Your task to perform on an android device: Clear the shopping cart on walmart. Add sony triple a to the cart on walmart, then select checkout. Image 0: 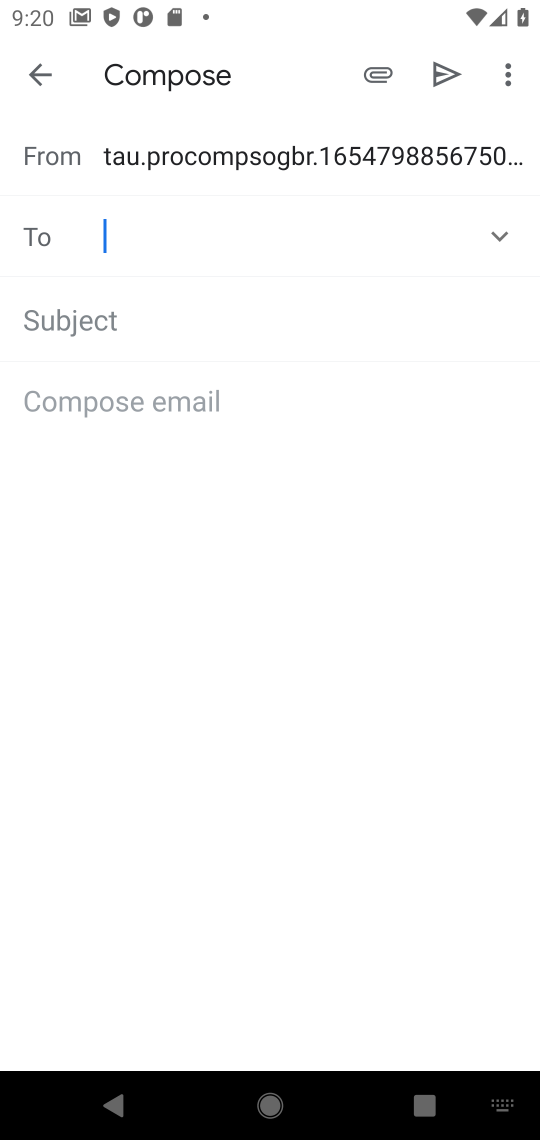
Step 0: press home button
Your task to perform on an android device: Clear the shopping cart on walmart. Add sony triple a to the cart on walmart, then select checkout. Image 1: 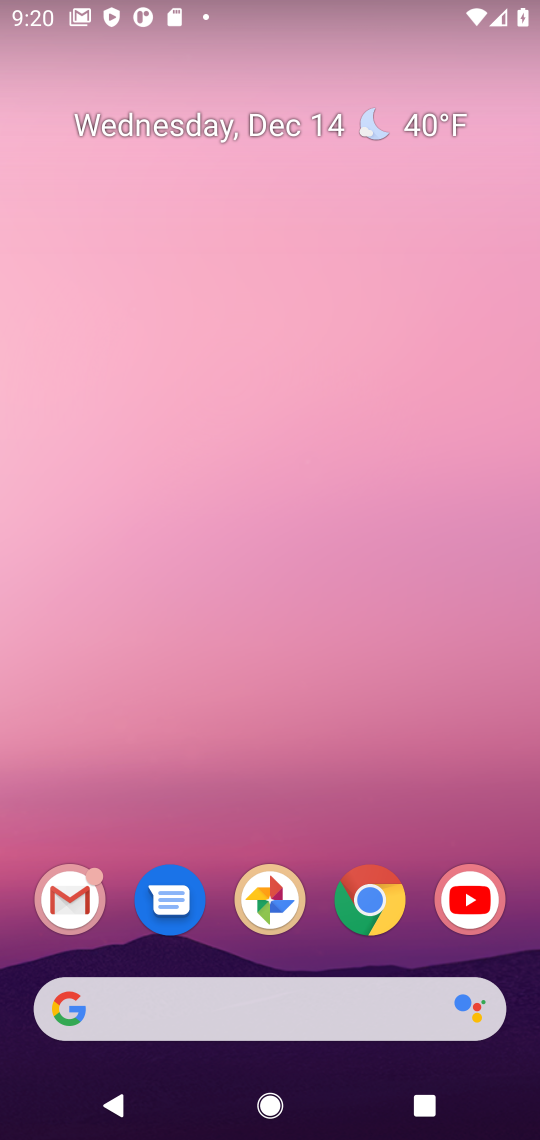
Step 1: click (378, 903)
Your task to perform on an android device: Clear the shopping cart on walmart. Add sony triple a to the cart on walmart, then select checkout. Image 2: 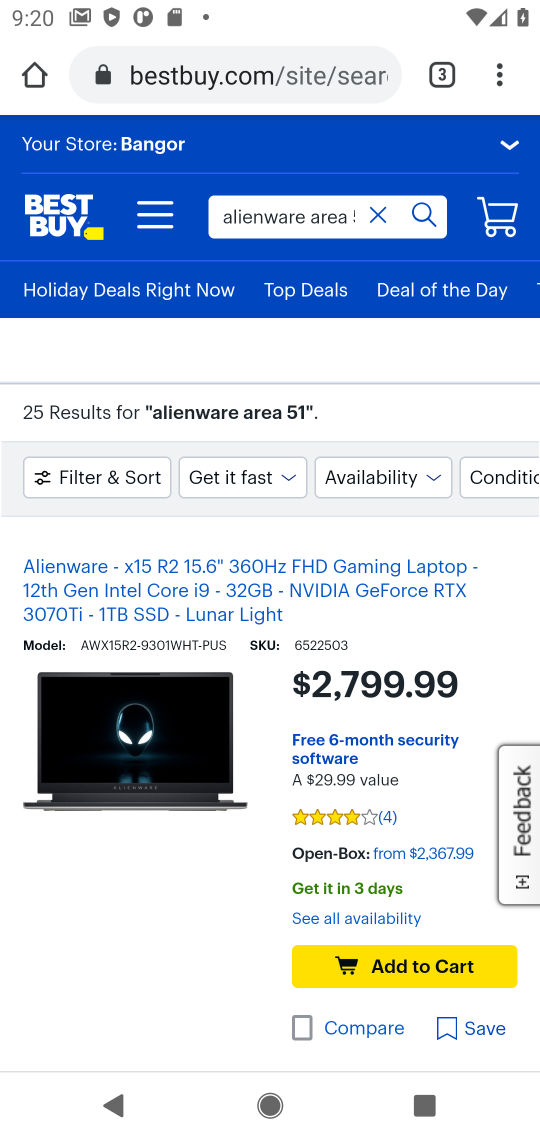
Step 2: click (175, 91)
Your task to perform on an android device: Clear the shopping cart on walmart. Add sony triple a to the cart on walmart, then select checkout. Image 3: 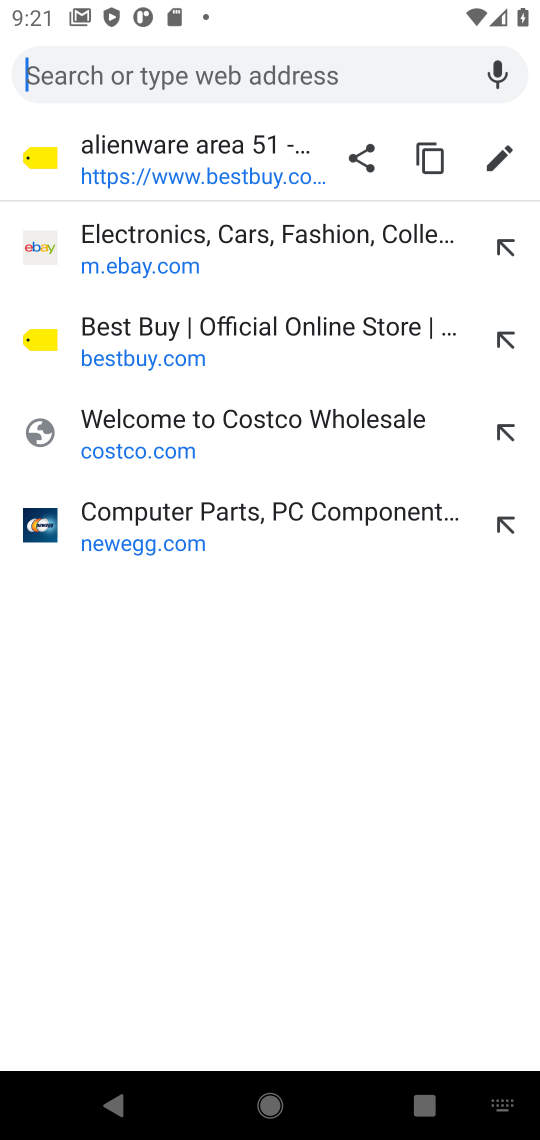
Step 3: type "walmart.com"
Your task to perform on an android device: Clear the shopping cart on walmart. Add sony triple a to the cart on walmart, then select checkout. Image 4: 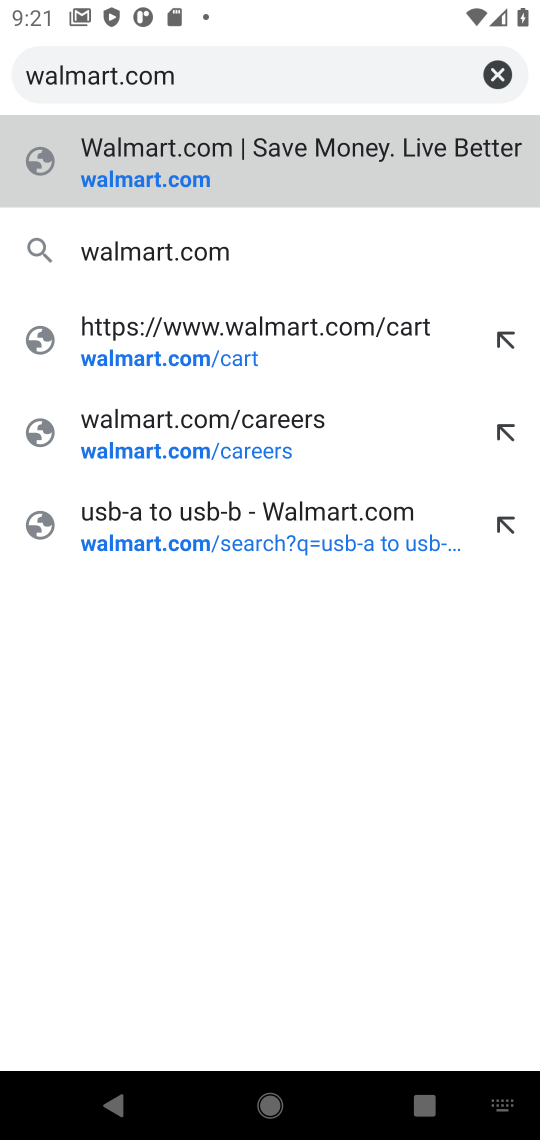
Step 4: click (151, 172)
Your task to perform on an android device: Clear the shopping cart on walmart. Add sony triple a to the cart on walmart, then select checkout. Image 5: 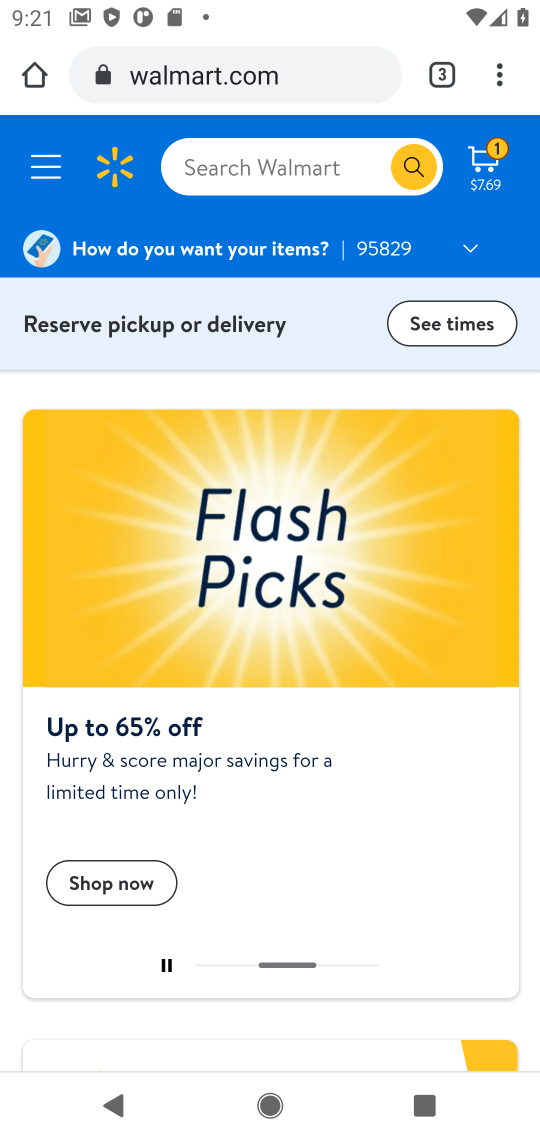
Step 5: click (483, 170)
Your task to perform on an android device: Clear the shopping cart on walmart. Add sony triple a to the cart on walmart, then select checkout. Image 6: 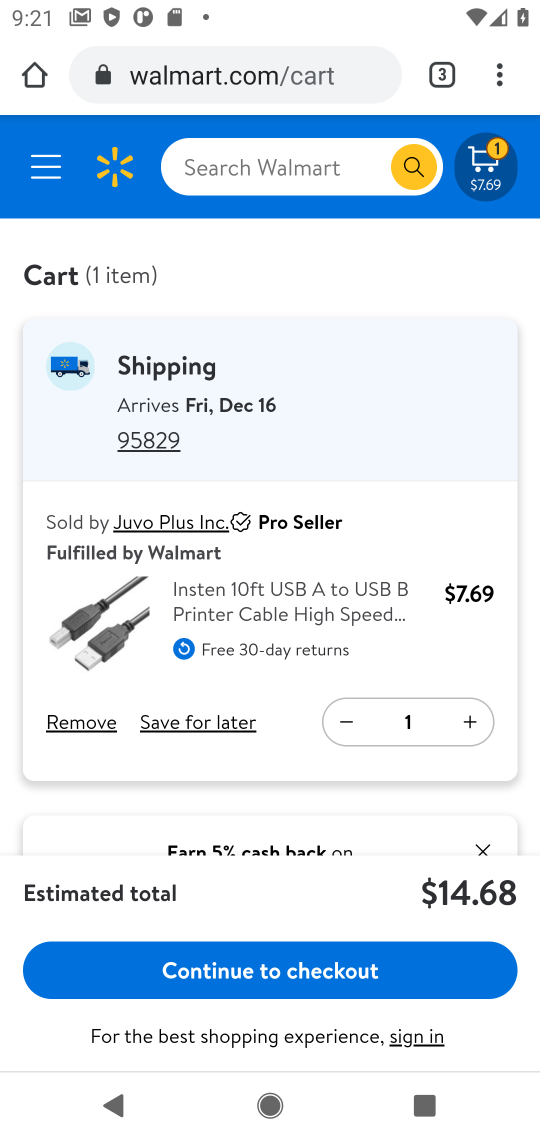
Step 6: click (89, 721)
Your task to perform on an android device: Clear the shopping cart on walmart. Add sony triple a to the cart on walmart, then select checkout. Image 7: 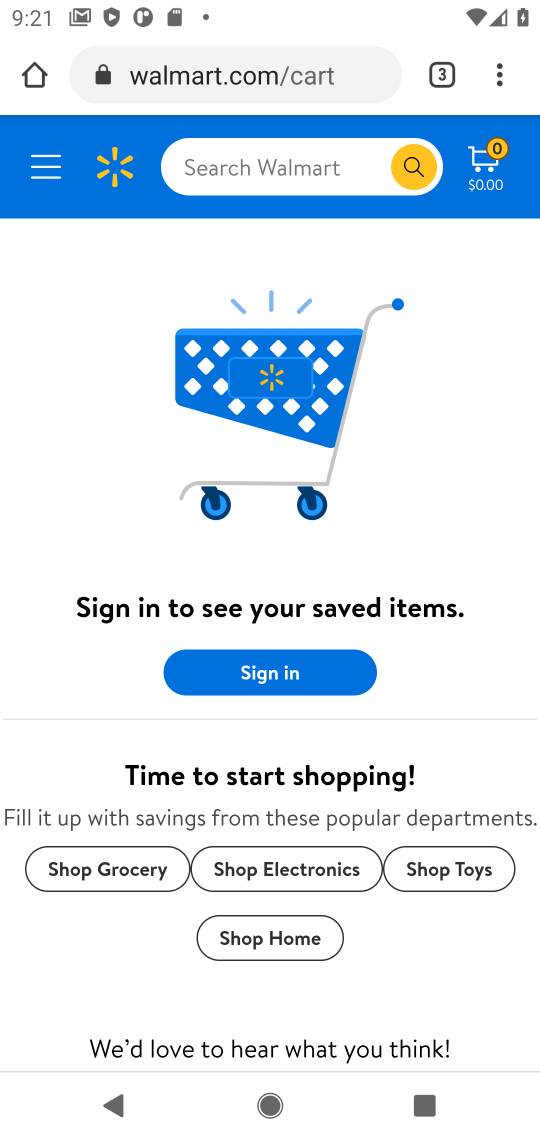
Step 7: click (225, 175)
Your task to perform on an android device: Clear the shopping cart on walmart. Add sony triple a to the cart on walmart, then select checkout. Image 8: 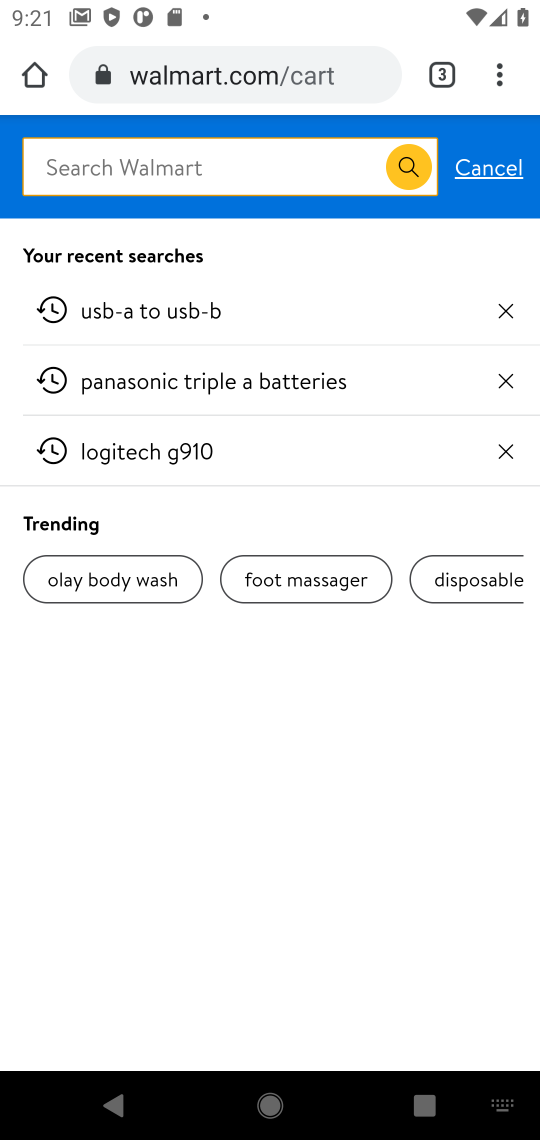
Step 8: type "sony triple a"
Your task to perform on an android device: Clear the shopping cart on walmart. Add sony triple a to the cart on walmart, then select checkout. Image 9: 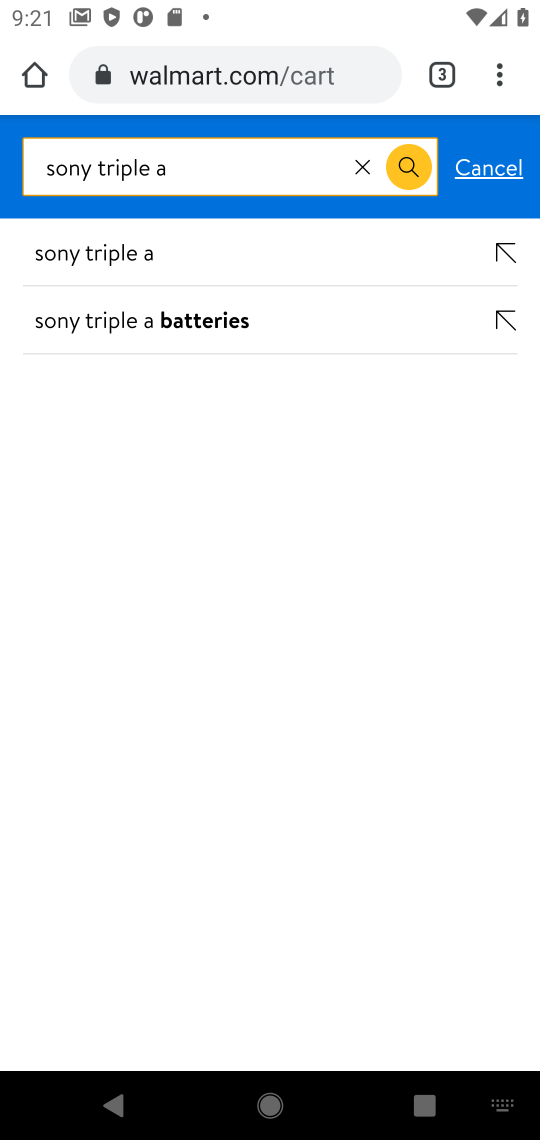
Step 9: click (118, 259)
Your task to perform on an android device: Clear the shopping cart on walmart. Add sony triple a to the cart on walmart, then select checkout. Image 10: 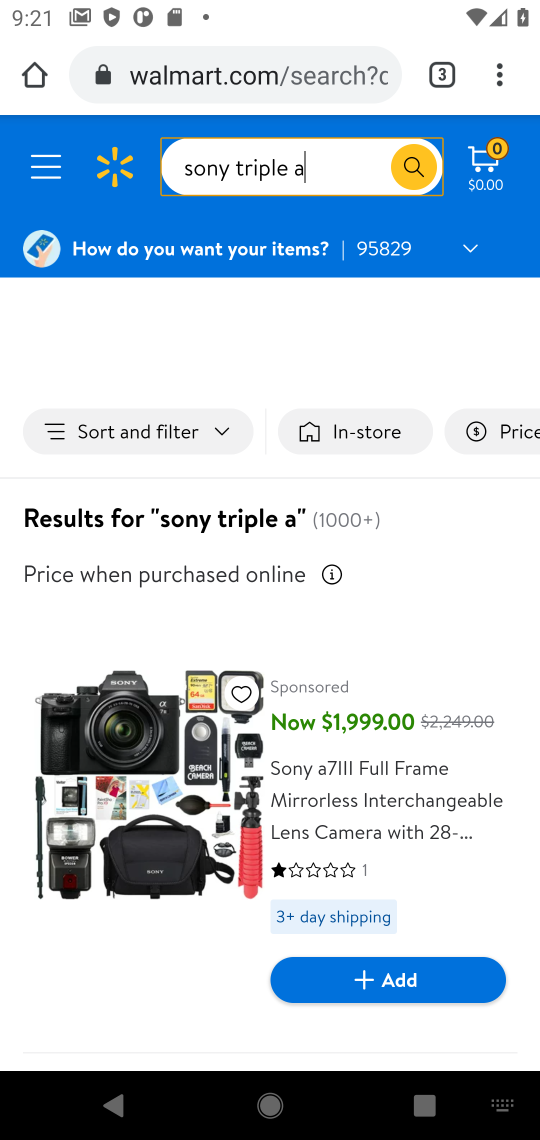
Step 10: drag from (281, 805) to (282, 559)
Your task to perform on an android device: Clear the shopping cart on walmart. Add sony triple a to the cart on walmart, then select checkout. Image 11: 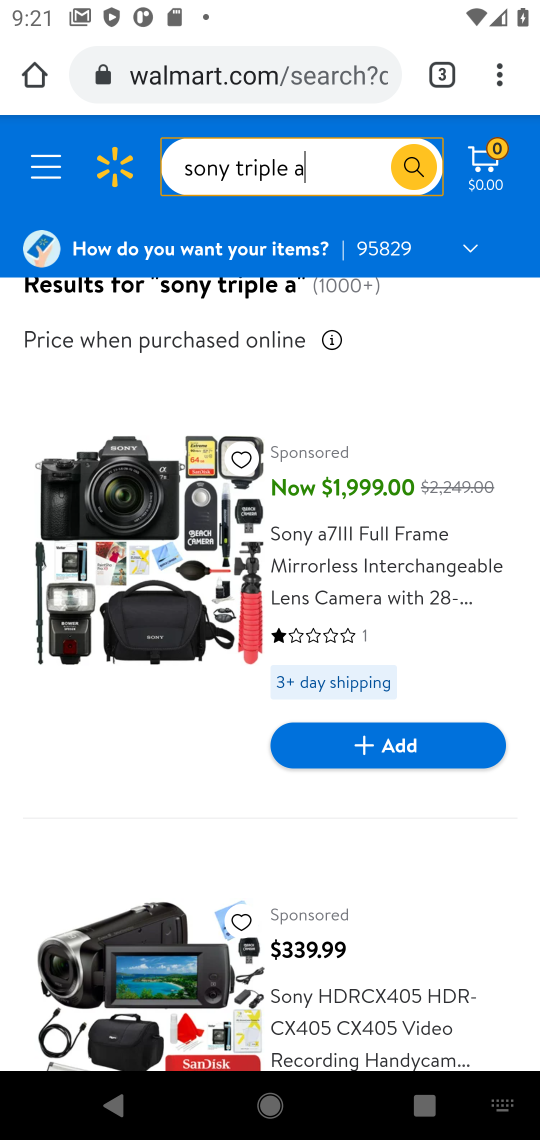
Step 11: drag from (246, 796) to (255, 440)
Your task to perform on an android device: Clear the shopping cart on walmart. Add sony triple a to the cart on walmart, then select checkout. Image 12: 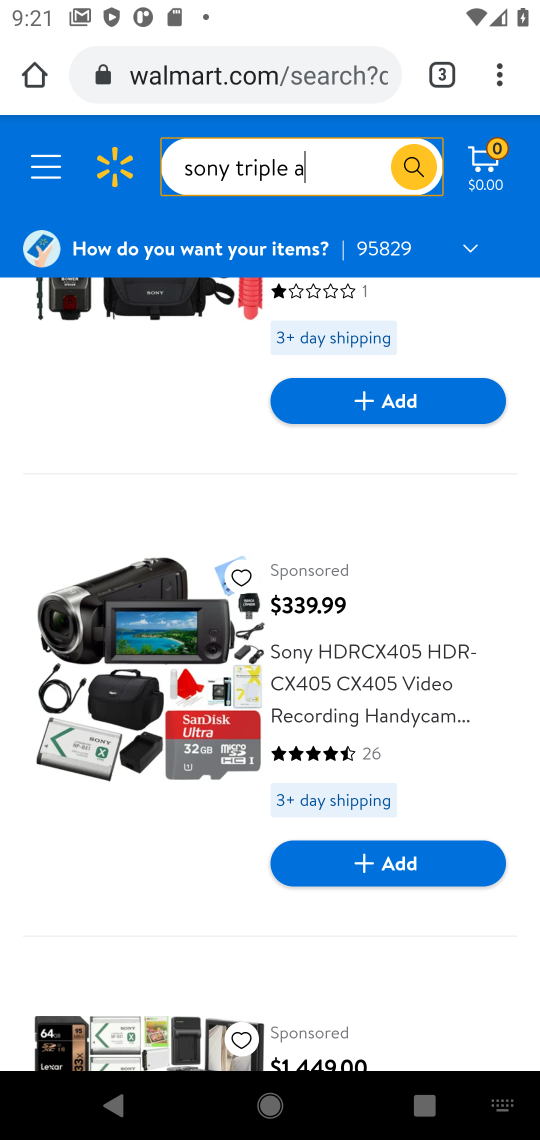
Step 12: drag from (216, 818) to (233, 483)
Your task to perform on an android device: Clear the shopping cart on walmart. Add sony triple a to the cart on walmart, then select checkout. Image 13: 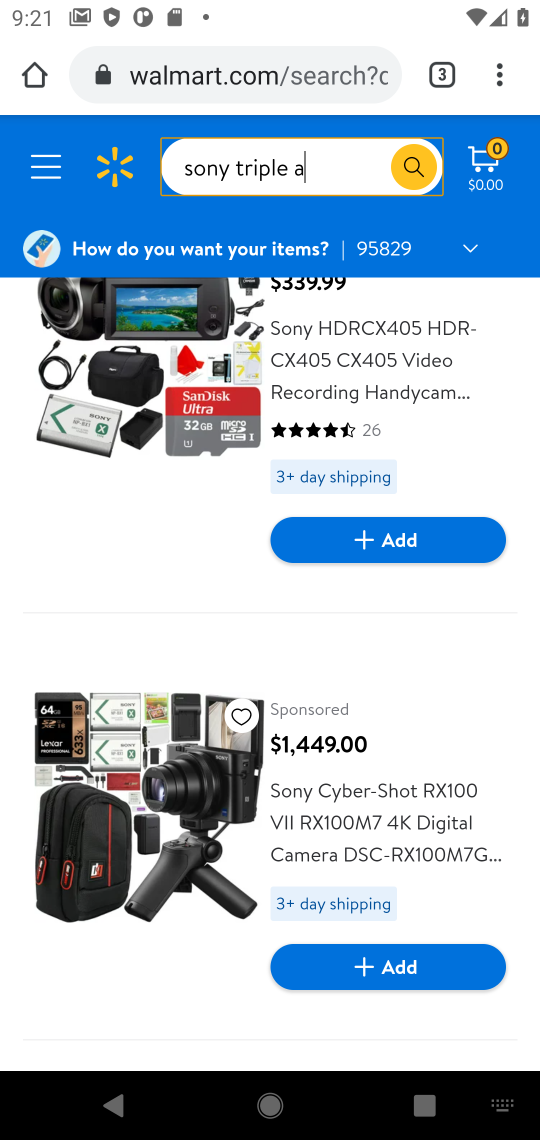
Step 13: drag from (221, 944) to (212, 487)
Your task to perform on an android device: Clear the shopping cart on walmart. Add sony triple a to the cart on walmart, then select checkout. Image 14: 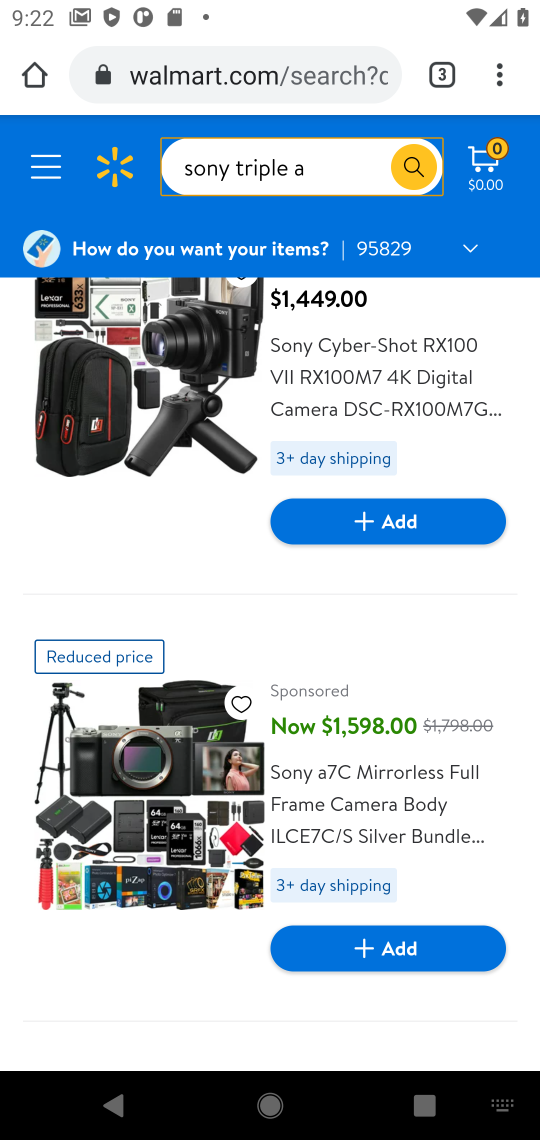
Step 14: drag from (188, 876) to (187, 518)
Your task to perform on an android device: Clear the shopping cart on walmart. Add sony triple a to the cart on walmart, then select checkout. Image 15: 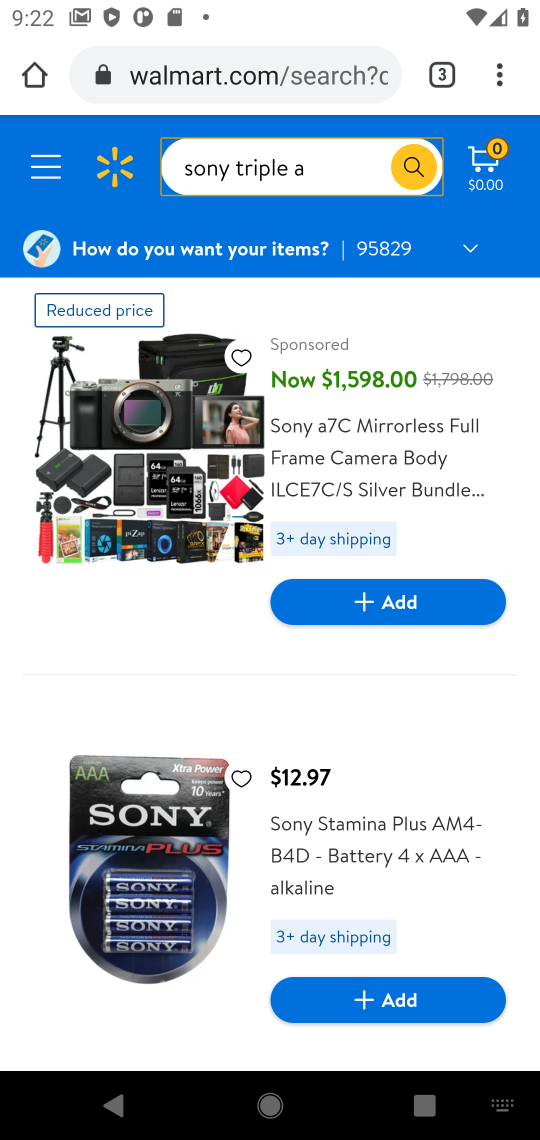
Step 15: drag from (189, 941) to (201, 710)
Your task to perform on an android device: Clear the shopping cart on walmart. Add sony triple a to the cart on walmart, then select checkout. Image 16: 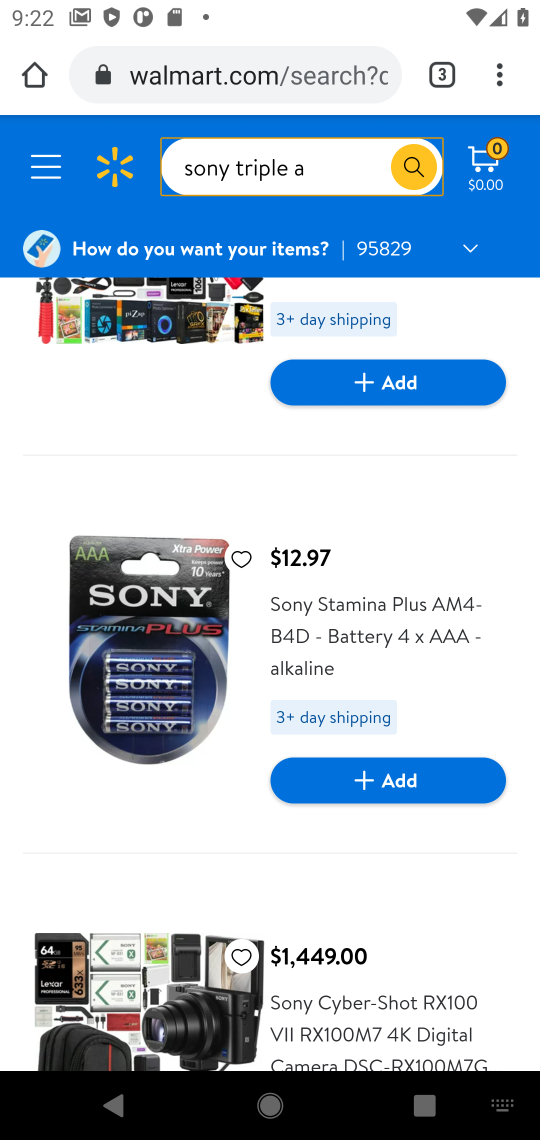
Step 16: click (368, 789)
Your task to perform on an android device: Clear the shopping cart on walmart. Add sony triple a to the cart on walmart, then select checkout. Image 17: 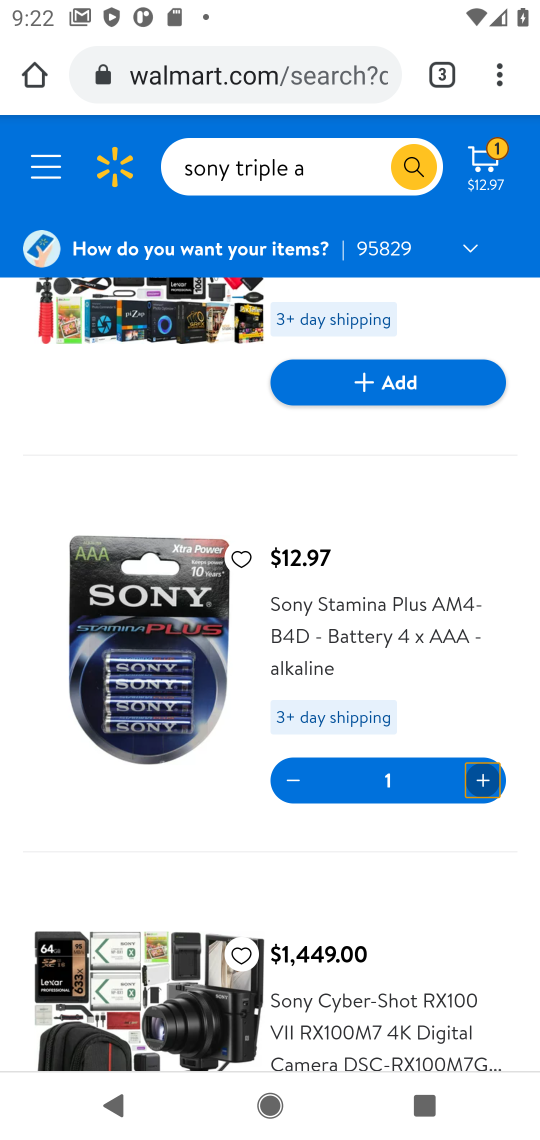
Step 17: click (477, 171)
Your task to perform on an android device: Clear the shopping cart on walmart. Add sony triple a to the cart on walmart, then select checkout. Image 18: 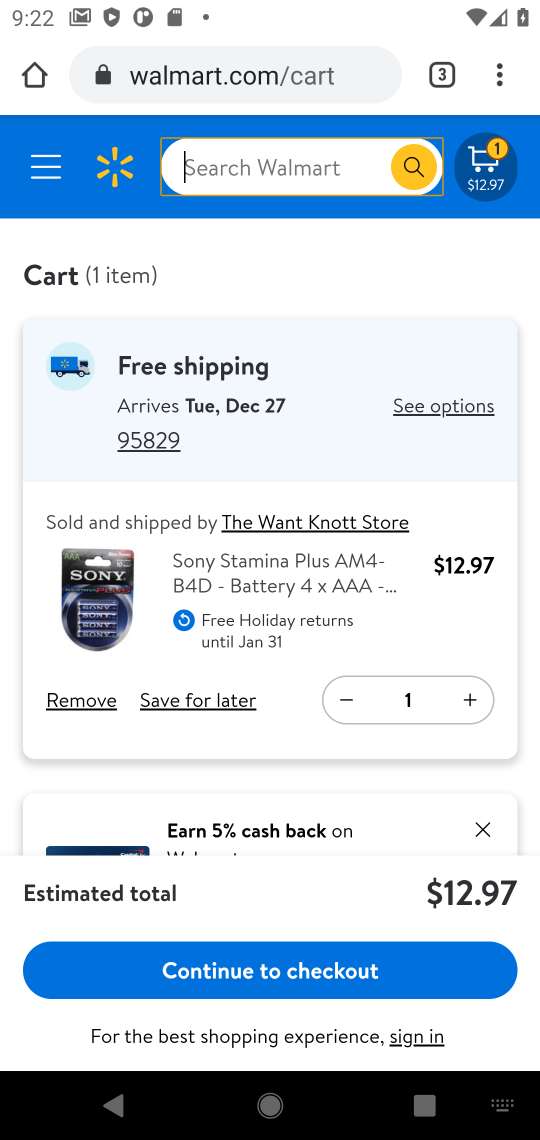
Step 18: click (210, 982)
Your task to perform on an android device: Clear the shopping cart on walmart. Add sony triple a to the cart on walmart, then select checkout. Image 19: 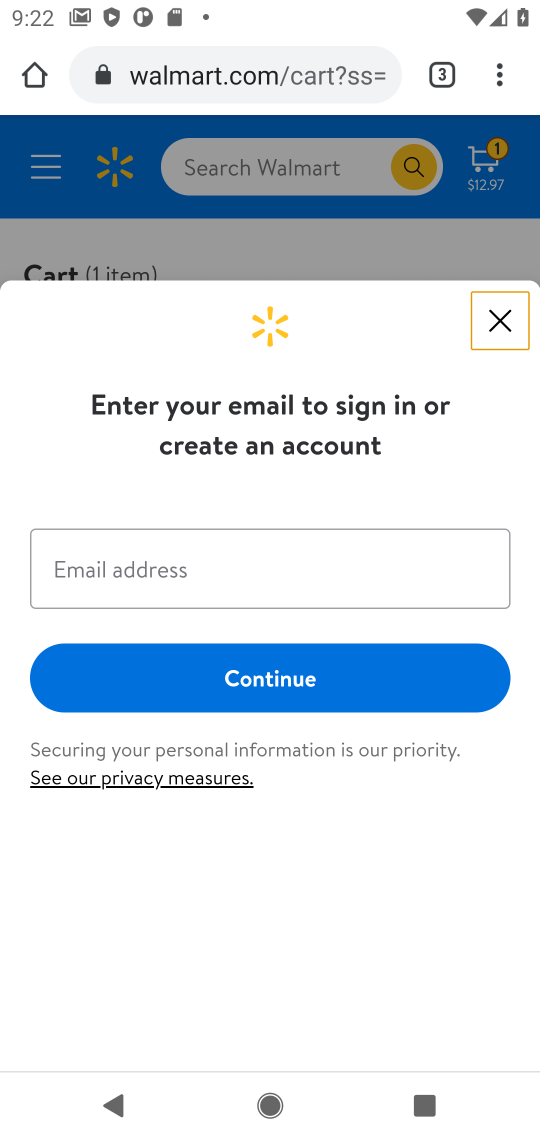
Step 19: task complete